Your task to perform on an android device: Open Google Chrome and open the bookmarks view Image 0: 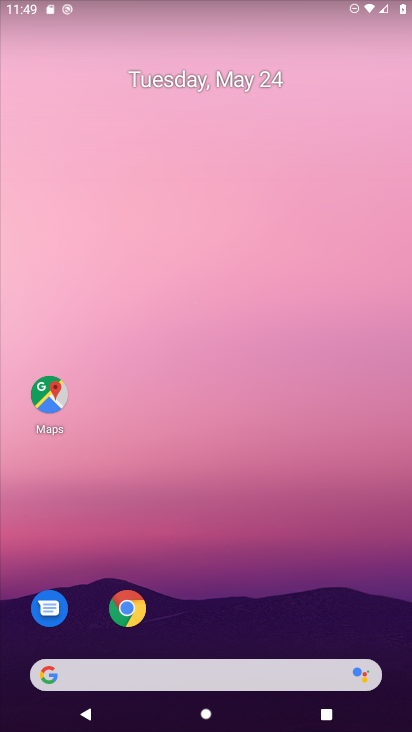
Step 0: click (124, 609)
Your task to perform on an android device: Open Google Chrome and open the bookmarks view Image 1: 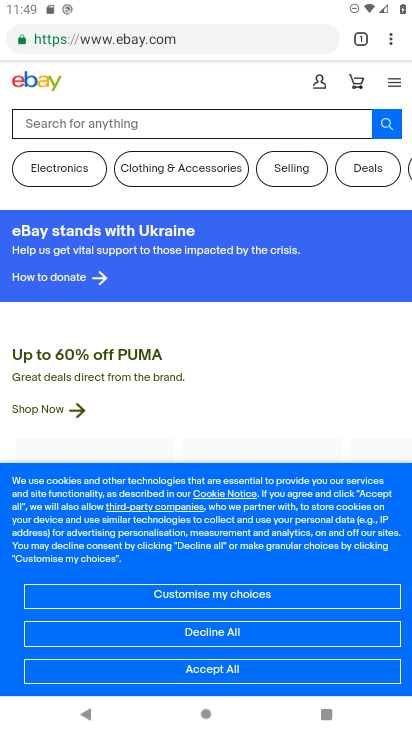
Step 1: click (390, 39)
Your task to perform on an android device: Open Google Chrome and open the bookmarks view Image 2: 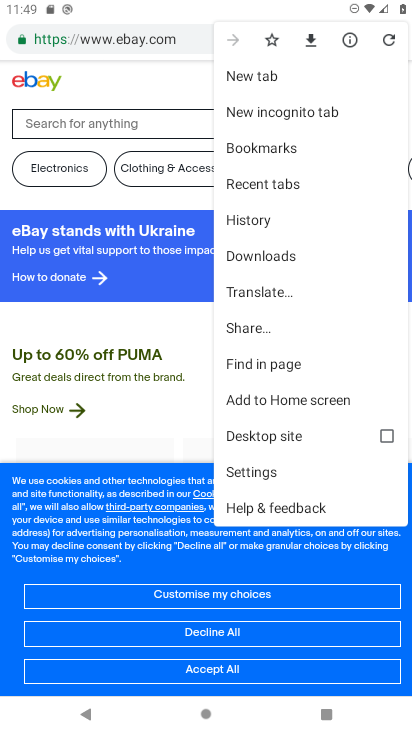
Step 2: click (265, 151)
Your task to perform on an android device: Open Google Chrome and open the bookmarks view Image 3: 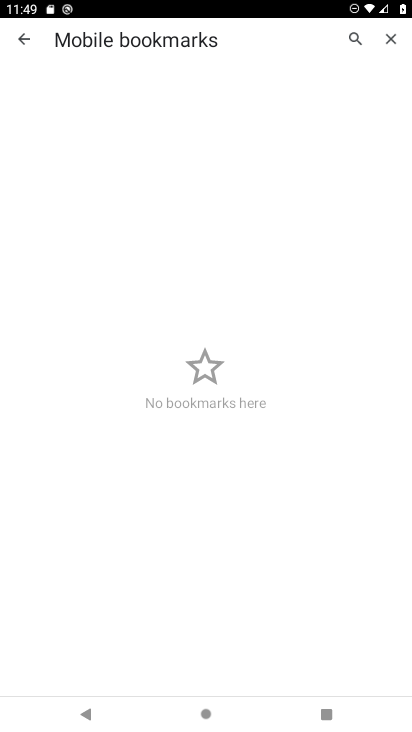
Step 3: task complete